Your task to perform on an android device: Clear all items from cart on newegg. Add "usb-c to usb-a" to the cart on newegg, then select checkout. Image 0: 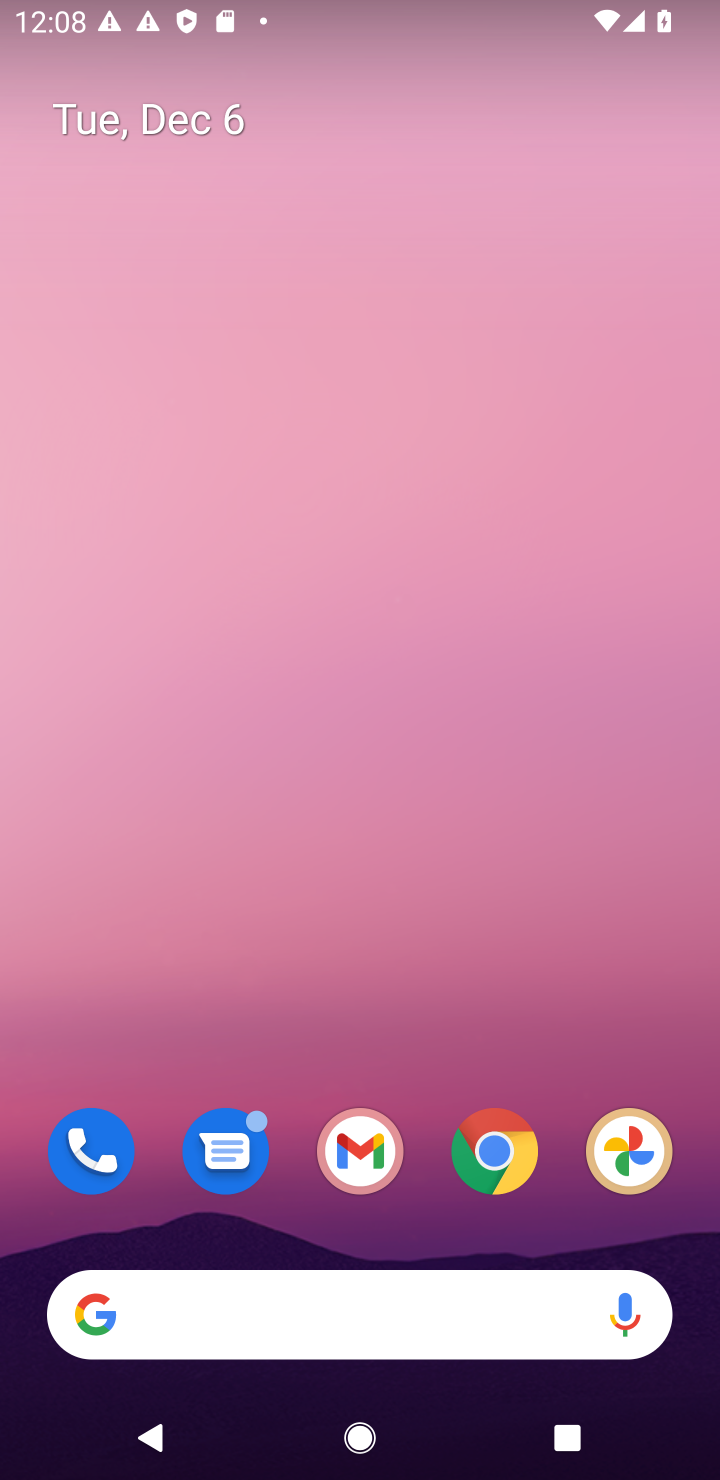
Step 0: click (496, 1166)
Your task to perform on an android device: Clear all items from cart on newegg. Add "usb-c to usb-a" to the cart on newegg, then select checkout. Image 1: 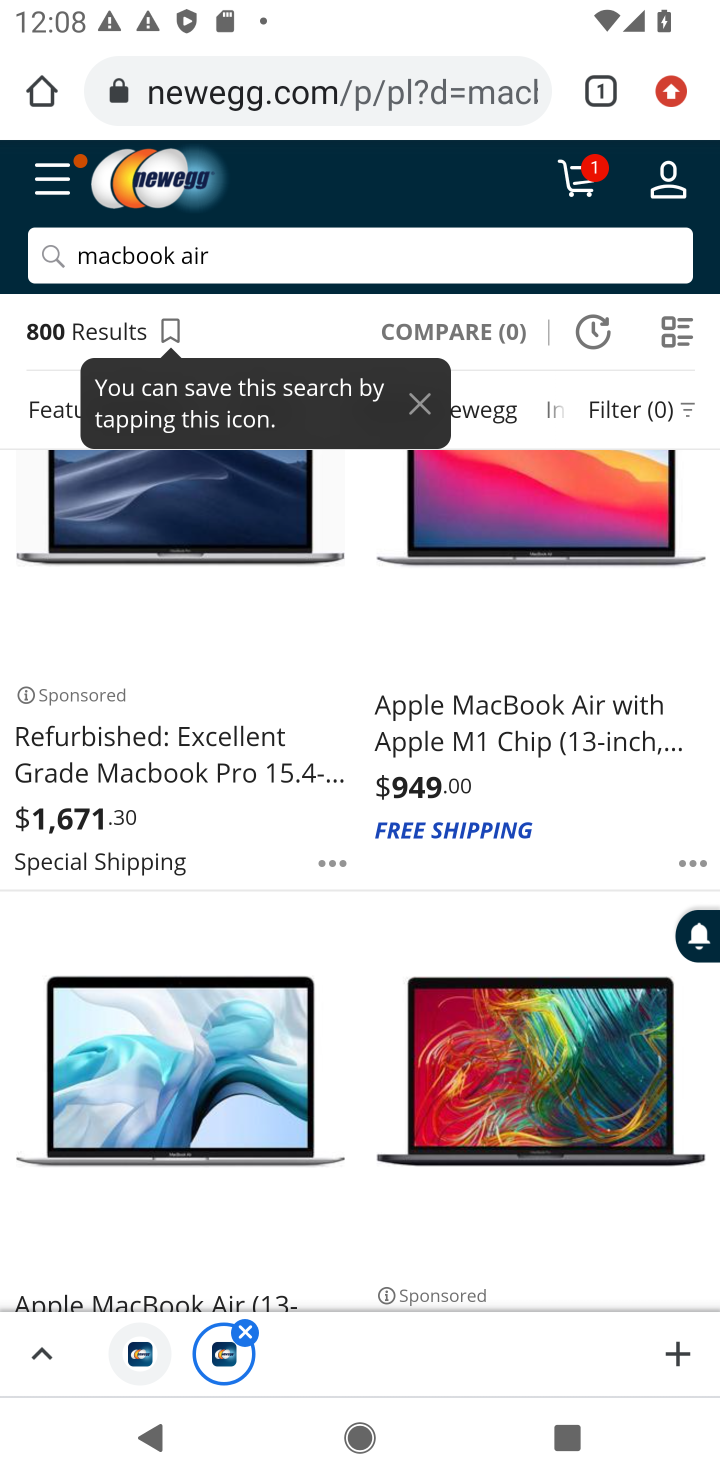
Step 1: click (584, 188)
Your task to perform on an android device: Clear all items from cart on newegg. Add "usb-c to usb-a" to the cart on newegg, then select checkout. Image 2: 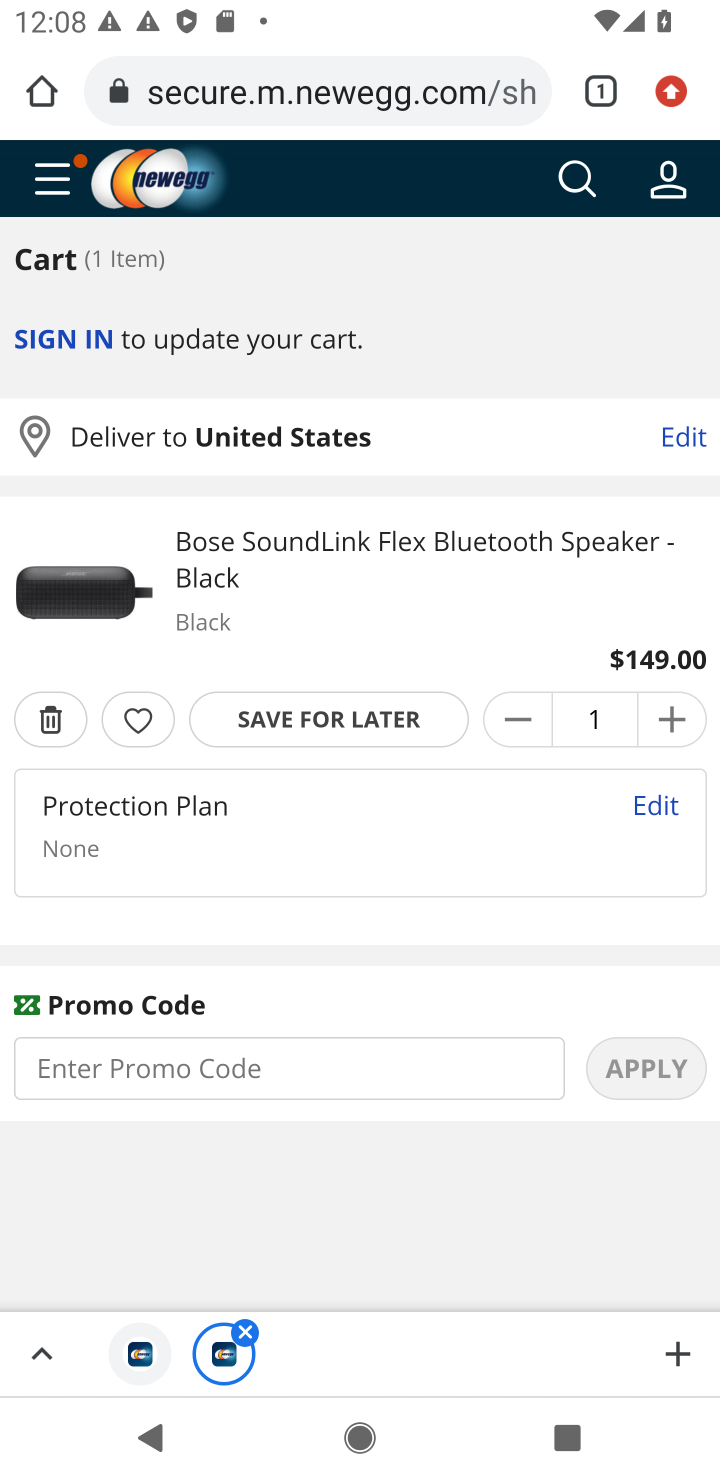
Step 2: click (44, 719)
Your task to perform on an android device: Clear all items from cart on newegg. Add "usb-c to usb-a" to the cart on newegg, then select checkout. Image 3: 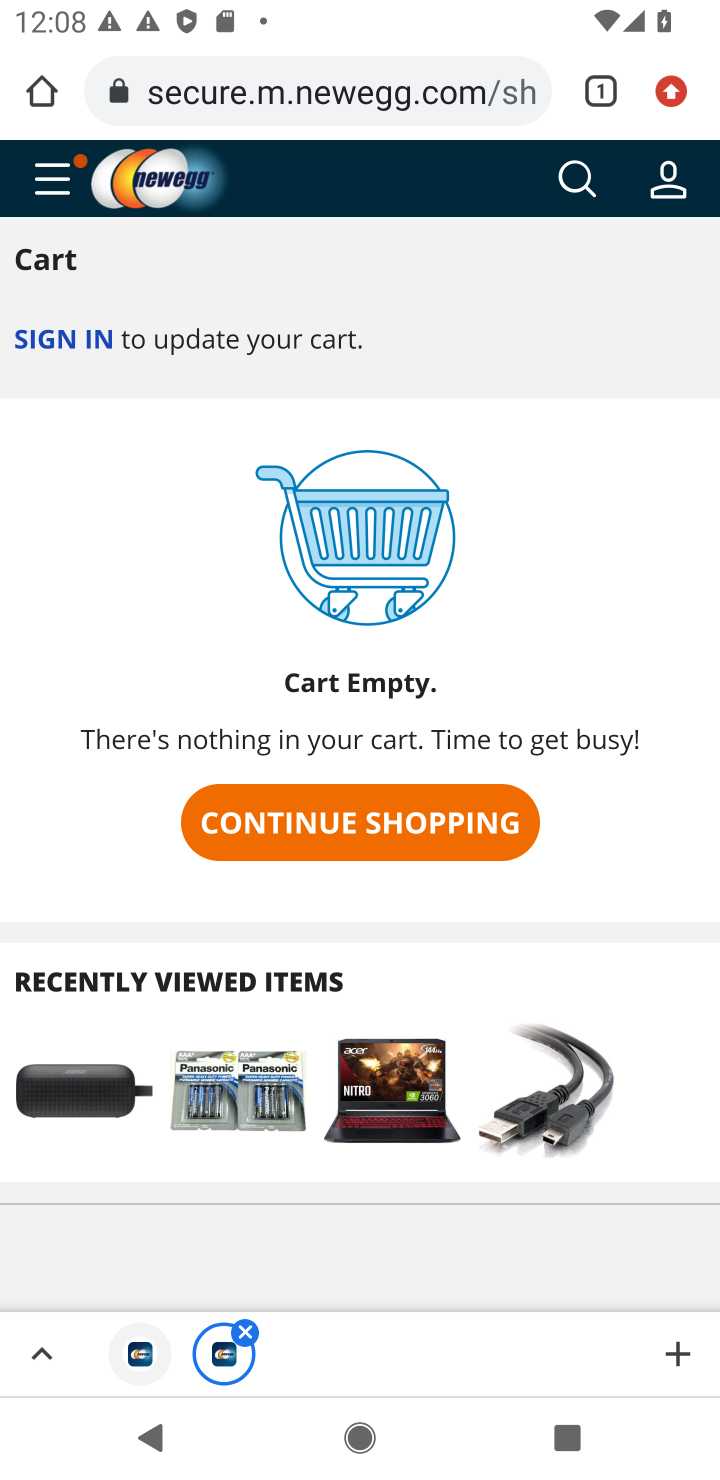
Step 3: click (574, 183)
Your task to perform on an android device: Clear all items from cart on newegg. Add "usb-c to usb-a" to the cart on newegg, then select checkout. Image 4: 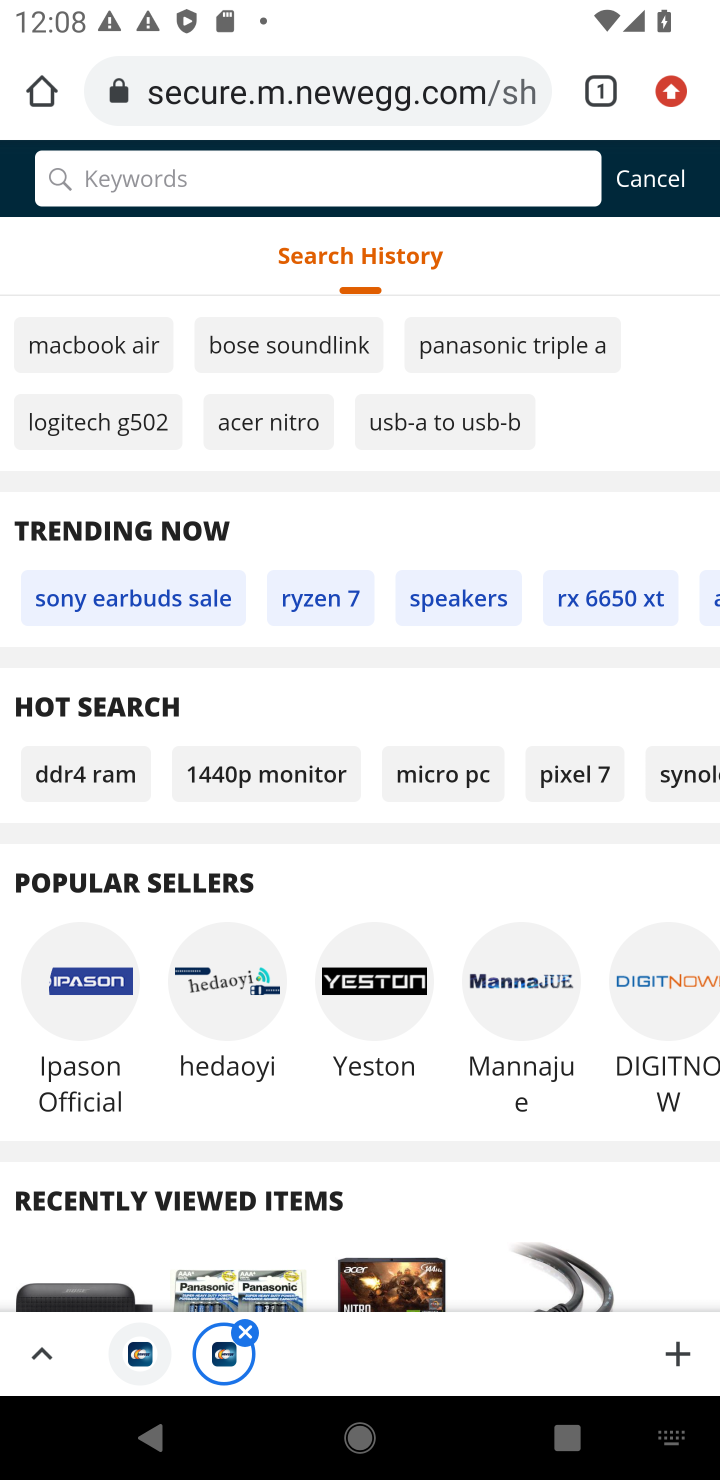
Step 4: type "usb-c to usb-a"
Your task to perform on an android device: Clear all items from cart on newegg. Add "usb-c to usb-a" to the cart on newegg, then select checkout. Image 5: 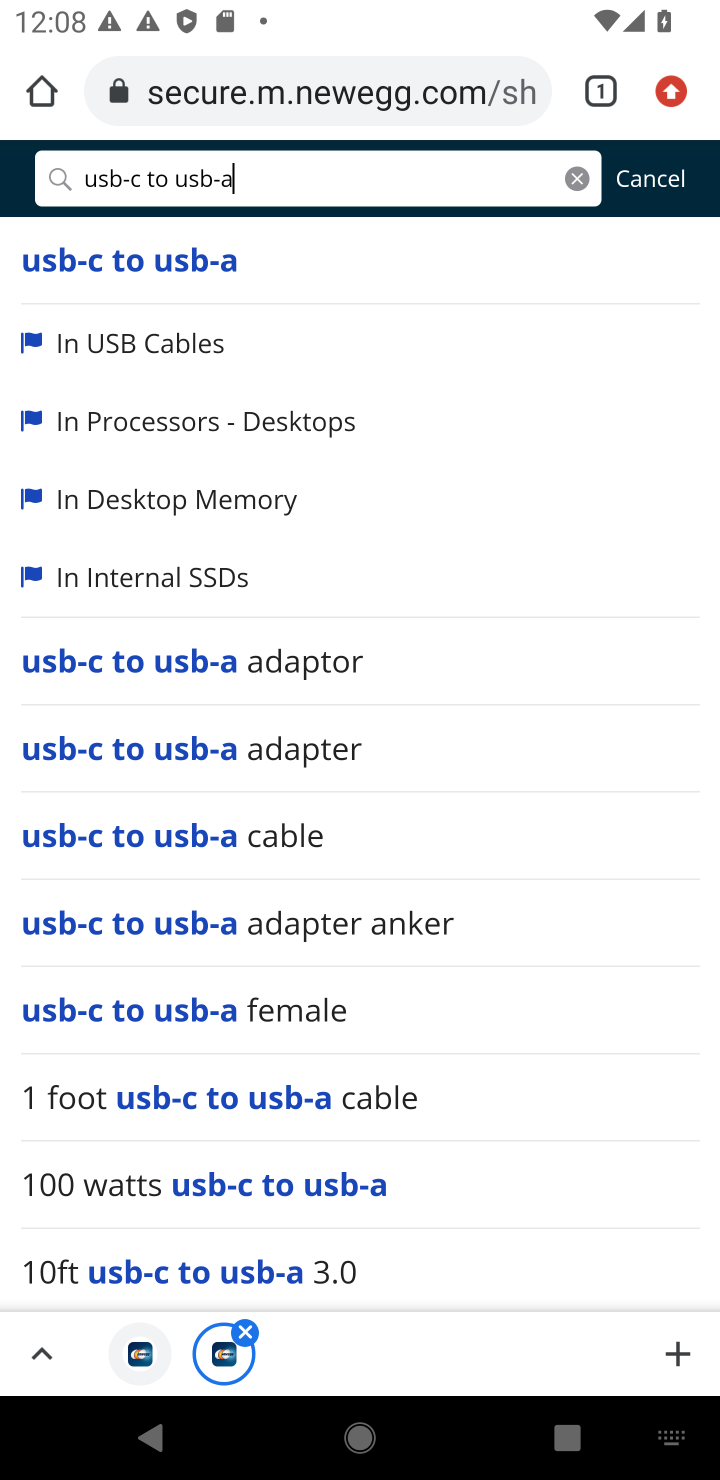
Step 5: click (184, 269)
Your task to perform on an android device: Clear all items from cart on newegg. Add "usb-c to usb-a" to the cart on newegg, then select checkout. Image 6: 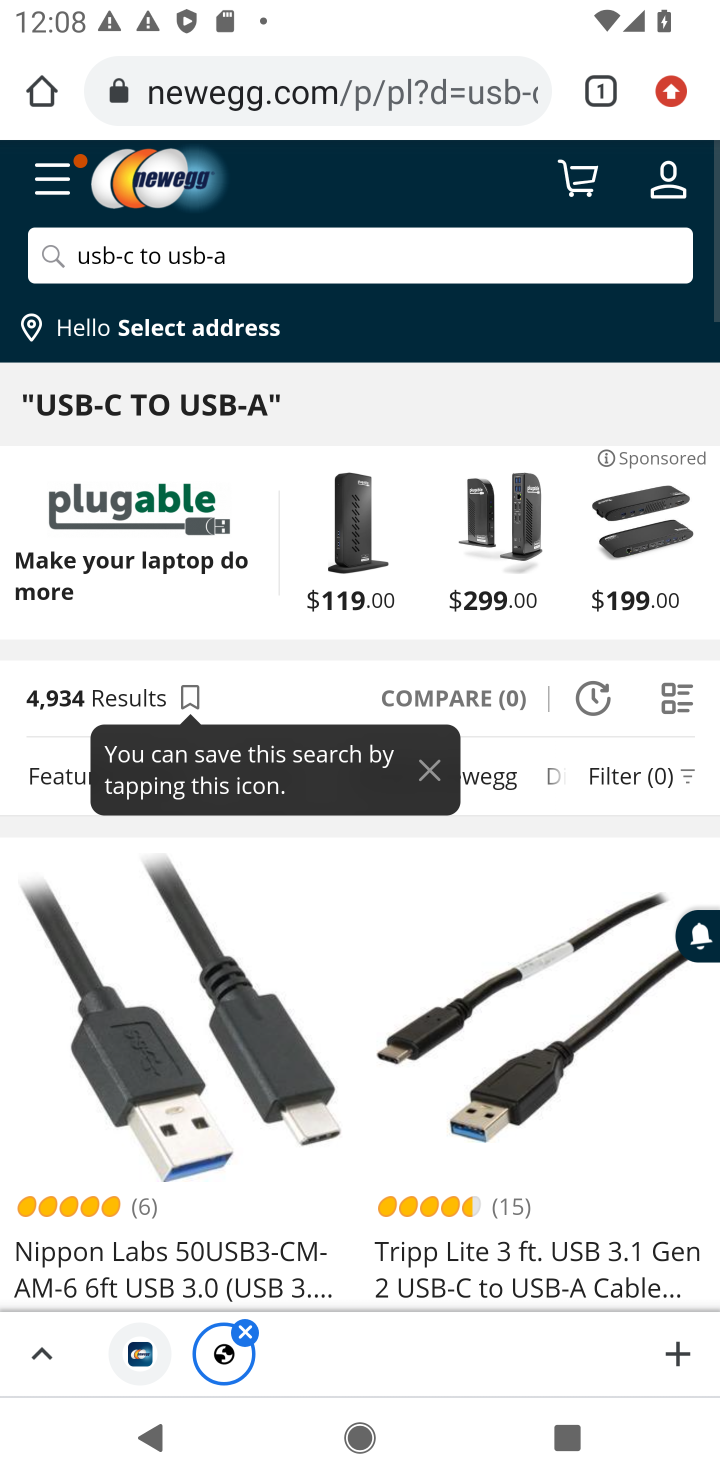
Step 6: drag from (299, 970) to (307, 474)
Your task to perform on an android device: Clear all items from cart on newegg. Add "usb-c to usb-a" to the cart on newegg, then select checkout. Image 7: 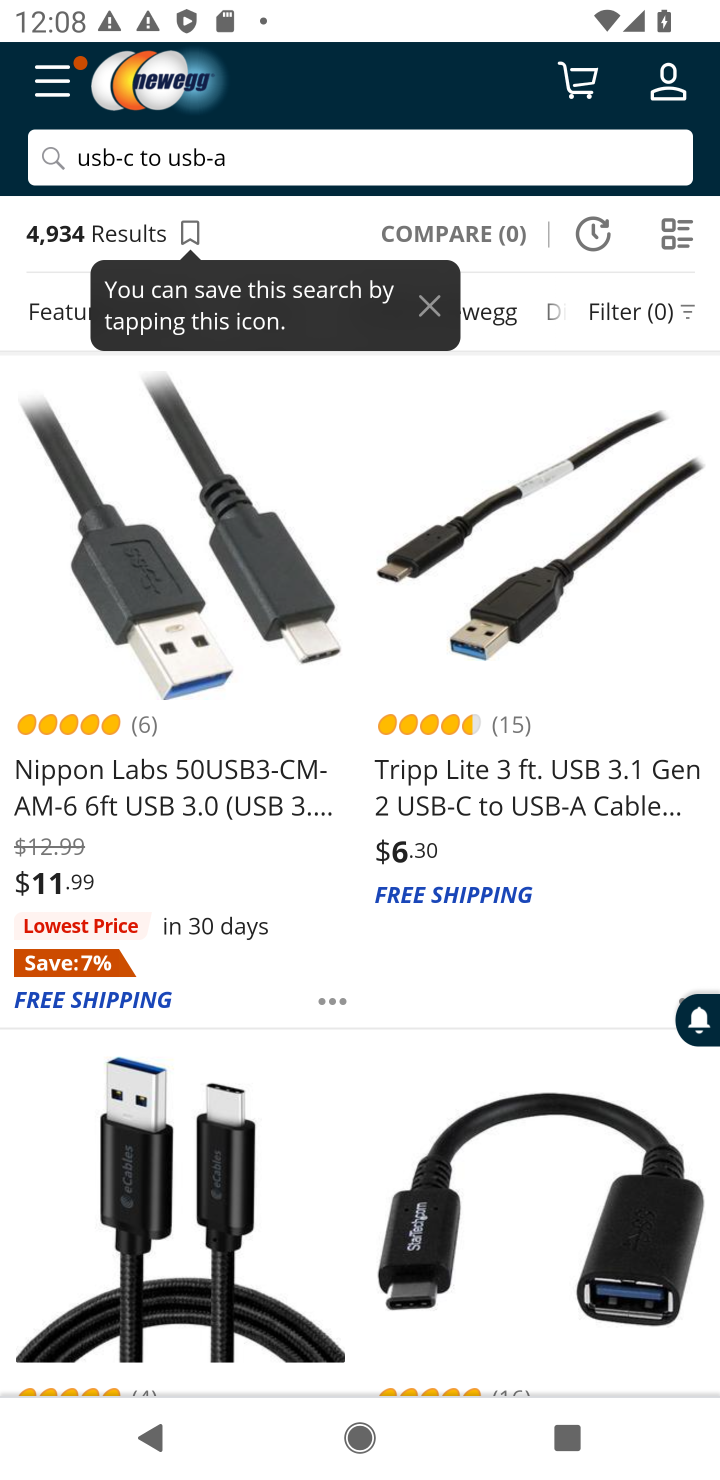
Step 7: click (559, 800)
Your task to perform on an android device: Clear all items from cart on newegg. Add "usb-c to usb-a" to the cart on newegg, then select checkout. Image 8: 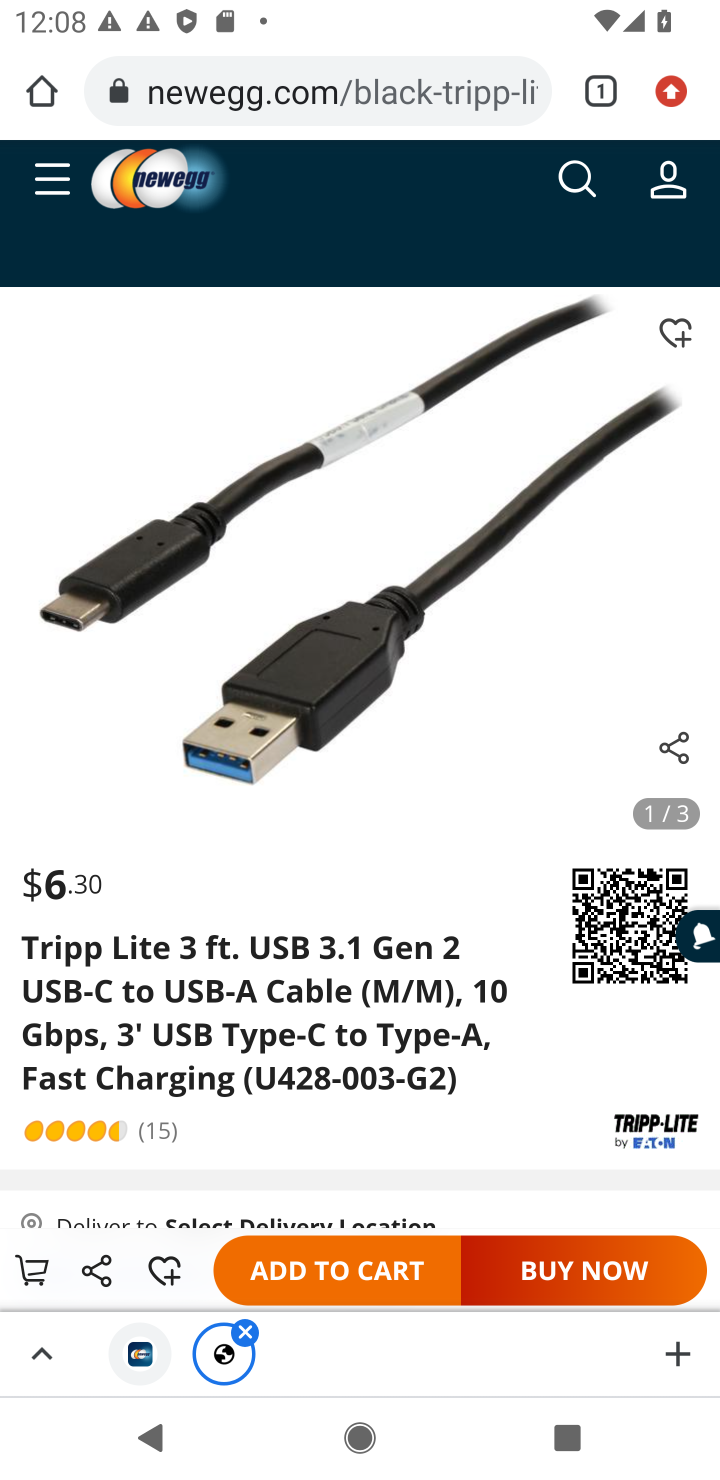
Step 8: click (305, 1258)
Your task to perform on an android device: Clear all items from cart on newegg. Add "usb-c to usb-a" to the cart on newegg, then select checkout. Image 9: 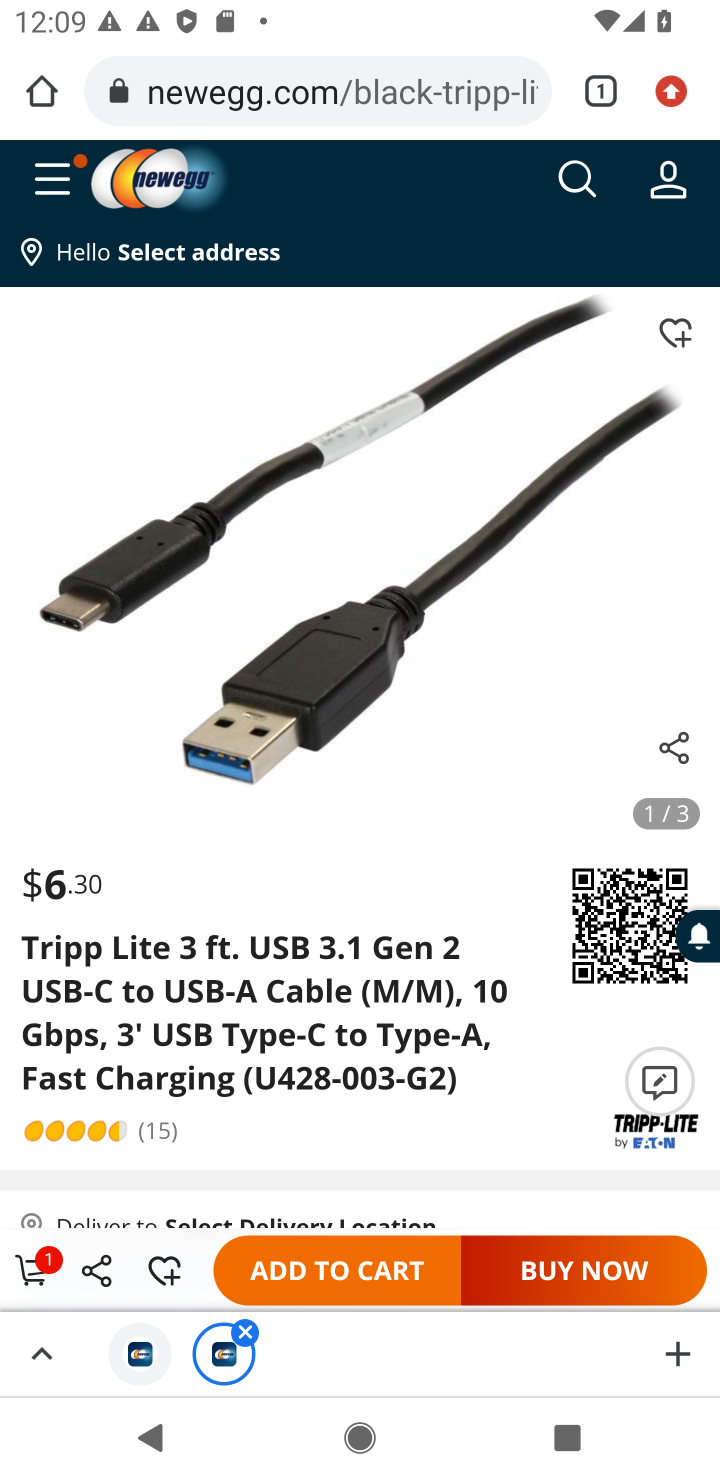
Step 9: click (45, 1264)
Your task to perform on an android device: Clear all items from cart on newegg. Add "usb-c to usb-a" to the cart on newegg, then select checkout. Image 10: 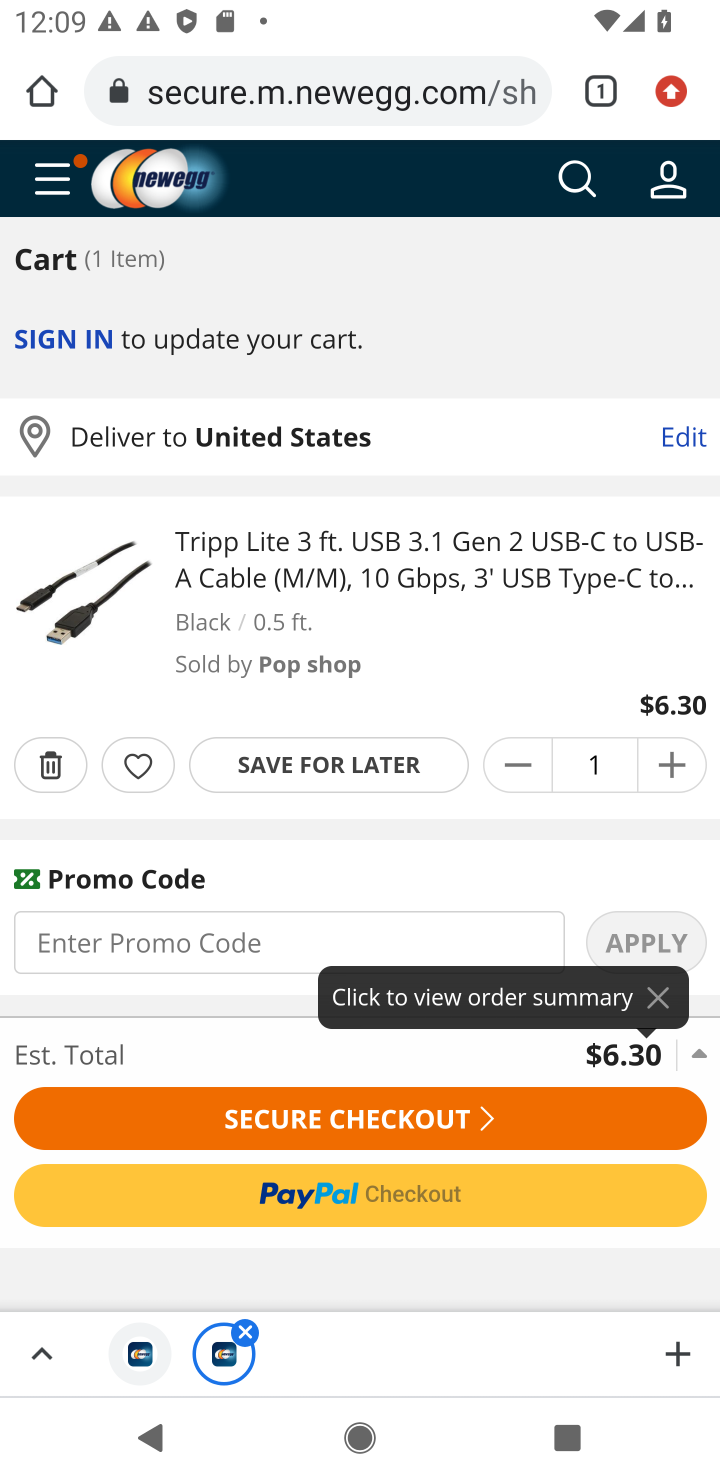
Step 10: click (317, 1118)
Your task to perform on an android device: Clear all items from cart on newegg. Add "usb-c to usb-a" to the cart on newegg, then select checkout. Image 11: 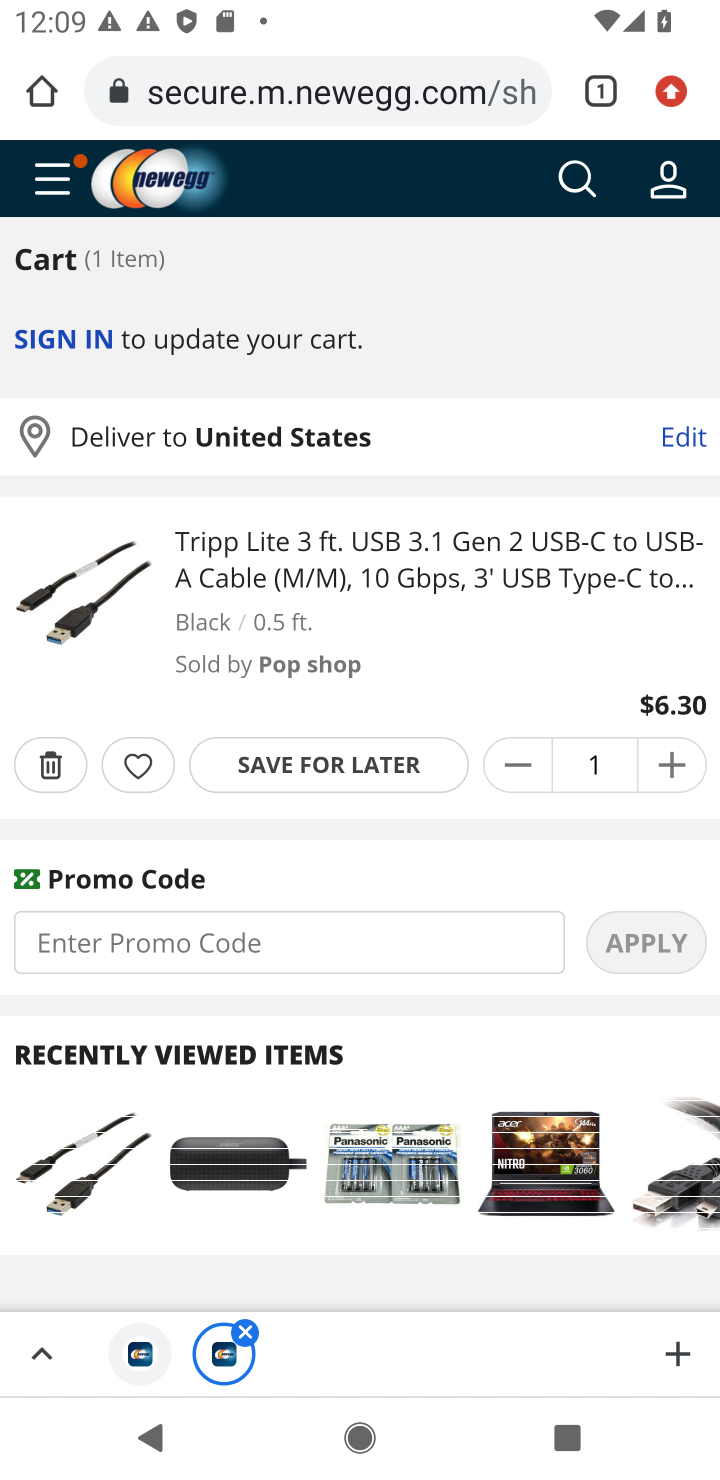
Step 11: click (317, 1118)
Your task to perform on an android device: Clear all items from cart on newegg. Add "usb-c to usb-a" to the cart on newegg, then select checkout. Image 12: 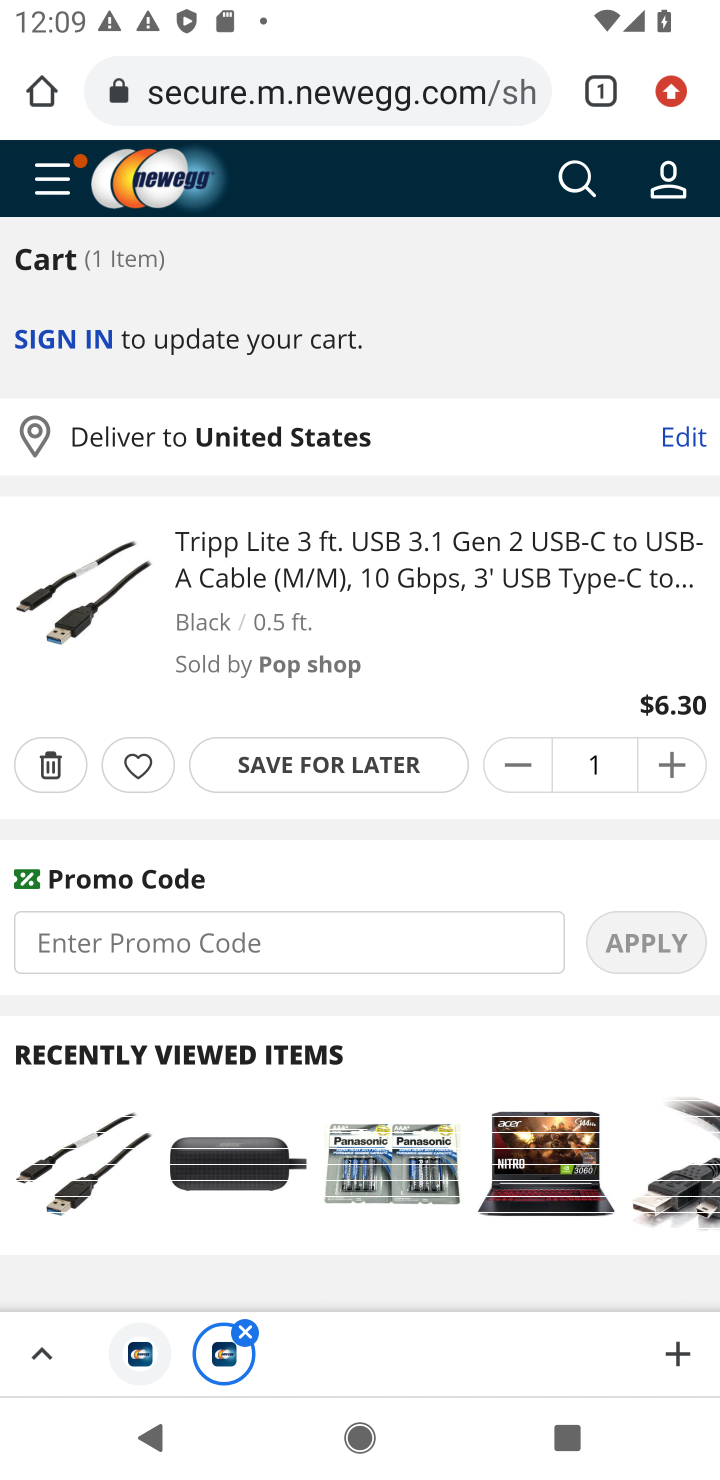
Step 12: click (434, 916)
Your task to perform on an android device: Clear all items from cart on newegg. Add "usb-c to usb-a" to the cart on newegg, then select checkout. Image 13: 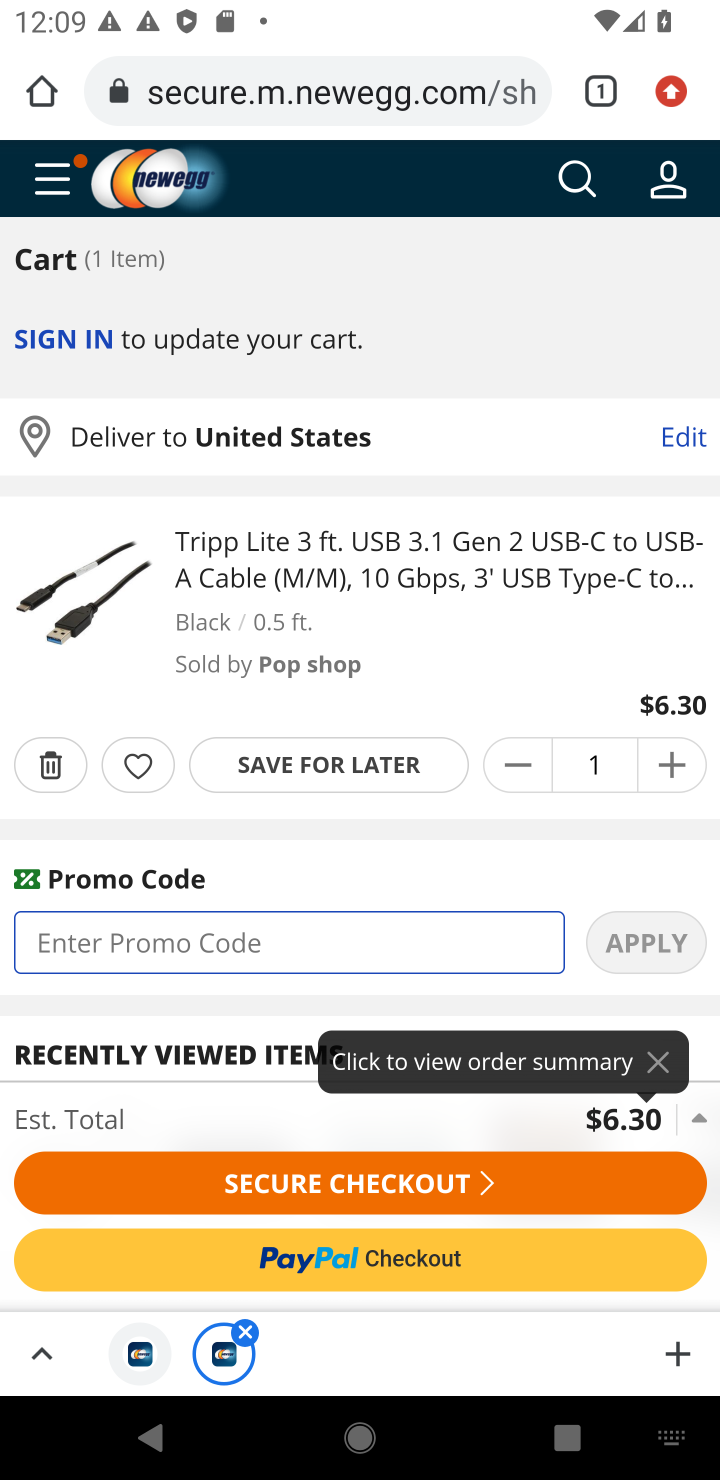
Step 13: click (365, 1178)
Your task to perform on an android device: Clear all items from cart on newegg. Add "usb-c to usb-a" to the cart on newegg, then select checkout. Image 14: 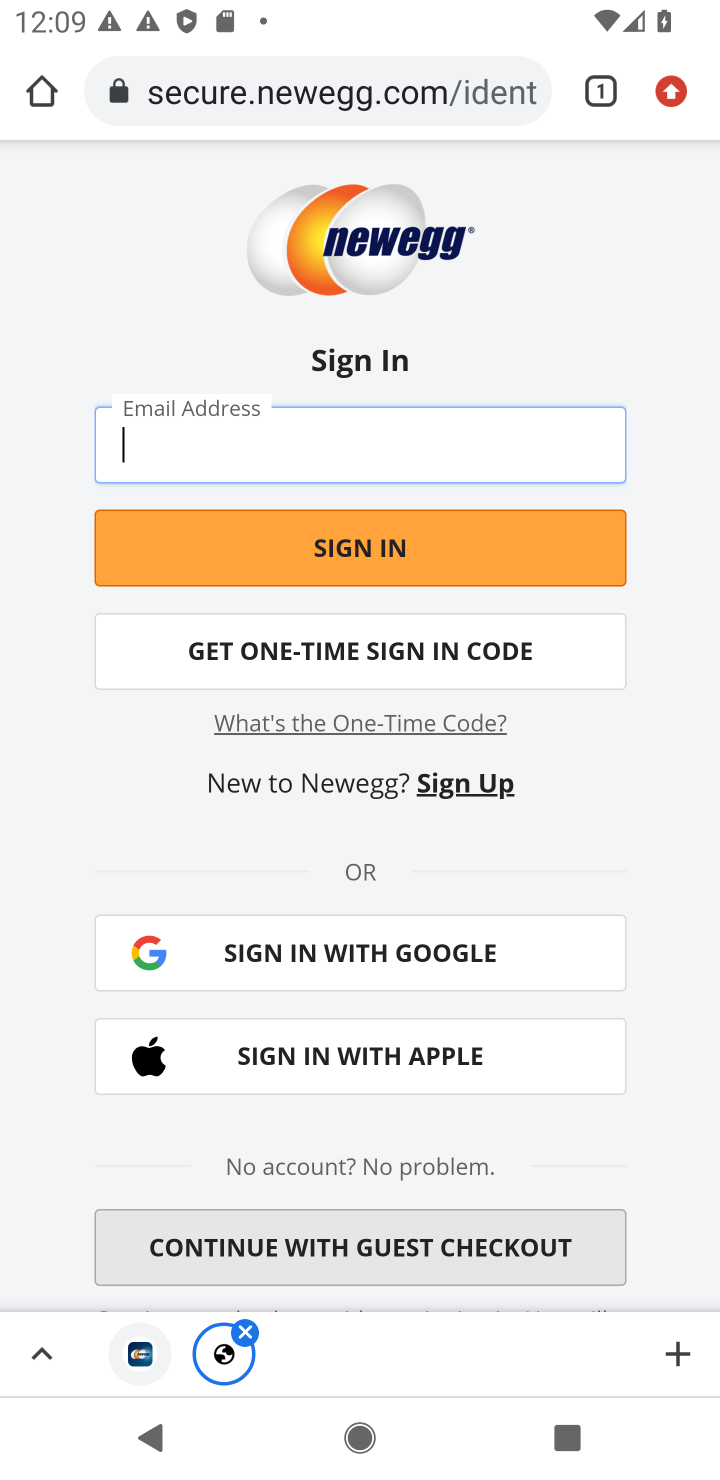
Step 14: task complete